Your task to perform on an android device: Open sound settings Image 0: 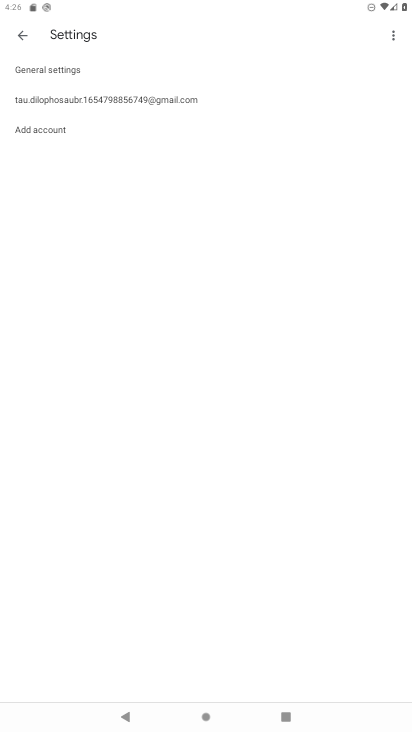
Step 0: press home button
Your task to perform on an android device: Open sound settings Image 1: 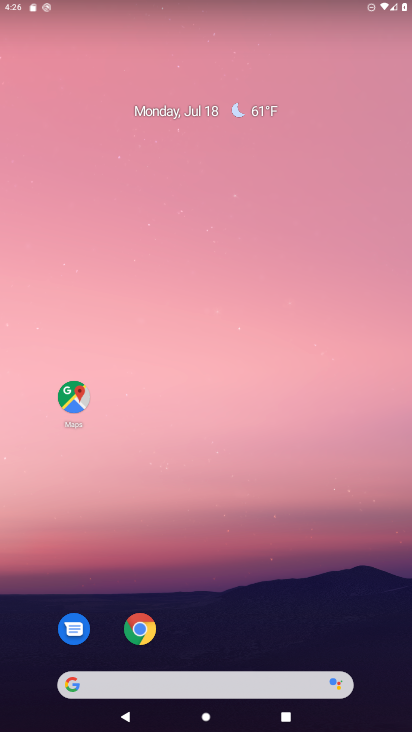
Step 1: drag from (234, 670) to (268, 258)
Your task to perform on an android device: Open sound settings Image 2: 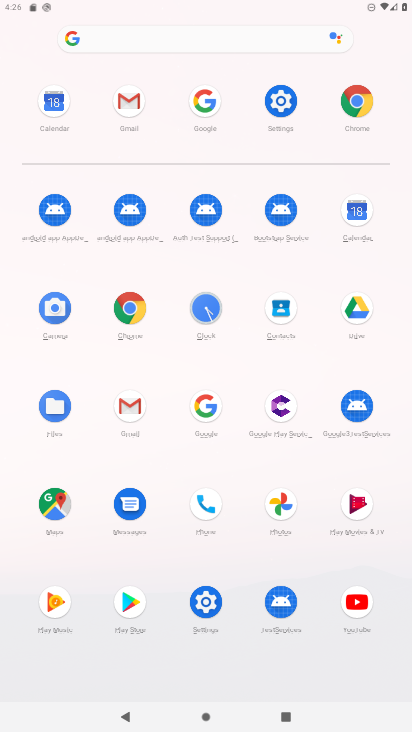
Step 2: click (275, 98)
Your task to perform on an android device: Open sound settings Image 3: 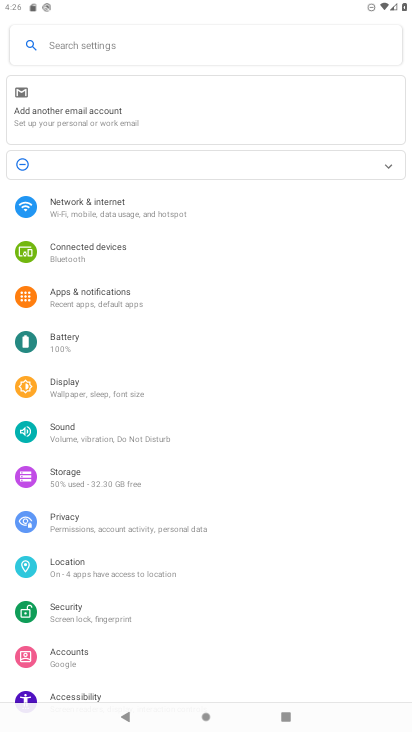
Step 3: click (85, 426)
Your task to perform on an android device: Open sound settings Image 4: 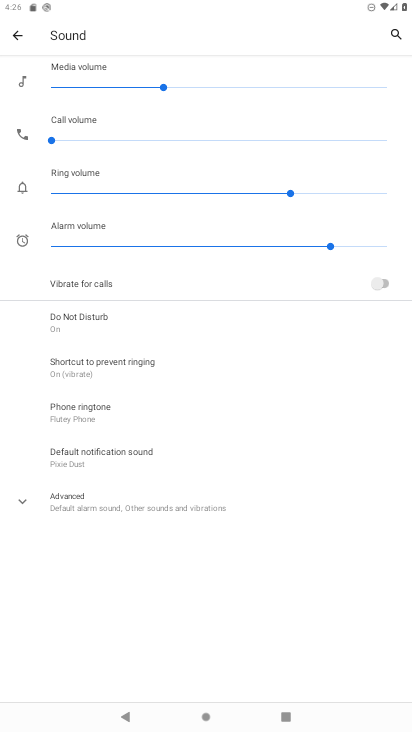
Step 4: click (107, 497)
Your task to perform on an android device: Open sound settings Image 5: 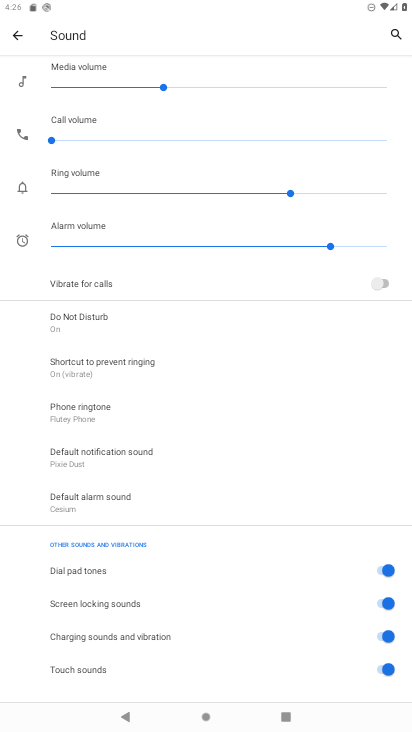
Step 5: task complete